Your task to perform on an android device: change the clock display to show seconds Image 0: 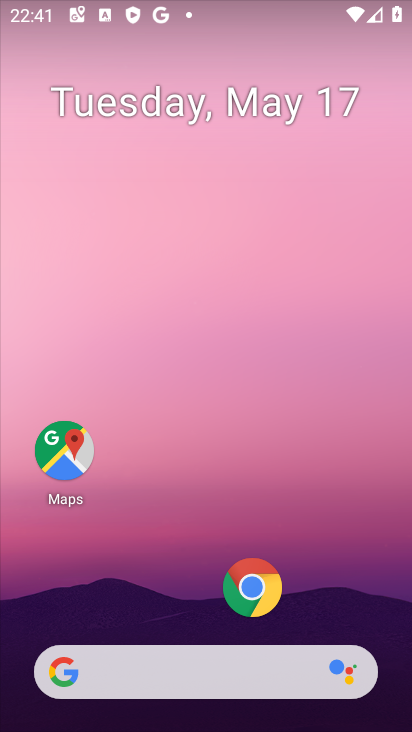
Step 0: drag from (169, 404) to (185, 150)
Your task to perform on an android device: change the clock display to show seconds Image 1: 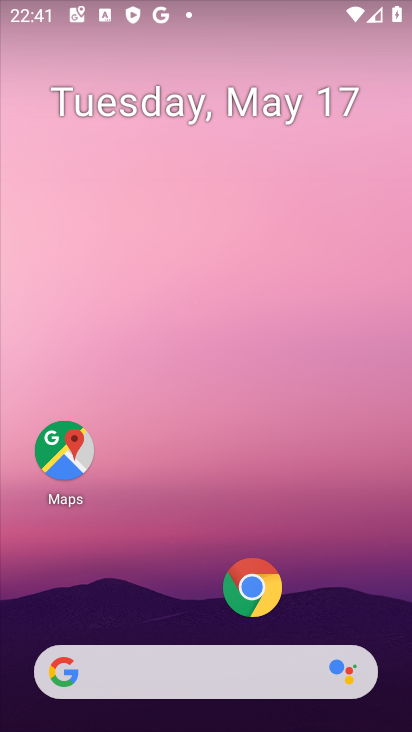
Step 1: drag from (202, 551) to (182, 41)
Your task to perform on an android device: change the clock display to show seconds Image 2: 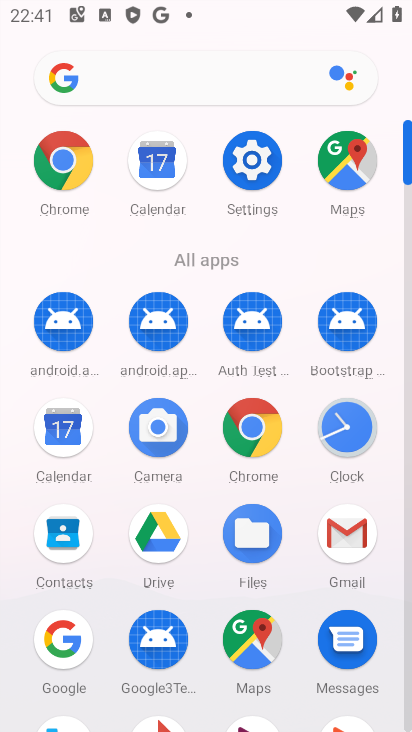
Step 2: click (350, 441)
Your task to perform on an android device: change the clock display to show seconds Image 3: 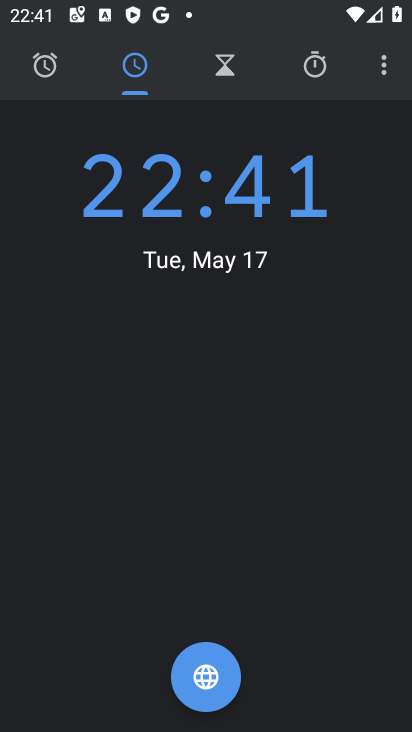
Step 3: click (381, 77)
Your task to perform on an android device: change the clock display to show seconds Image 4: 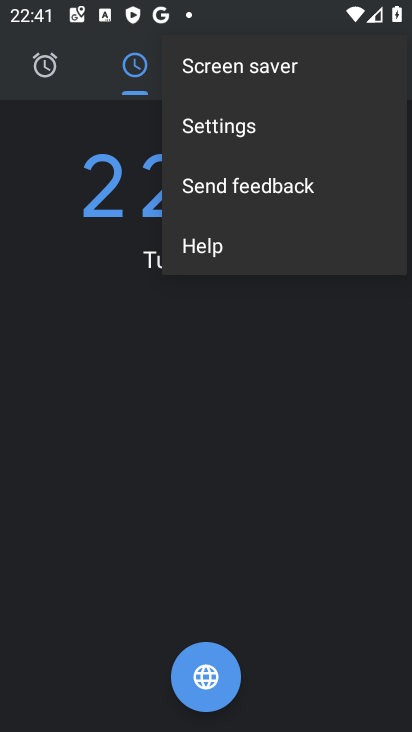
Step 4: click (281, 131)
Your task to perform on an android device: change the clock display to show seconds Image 5: 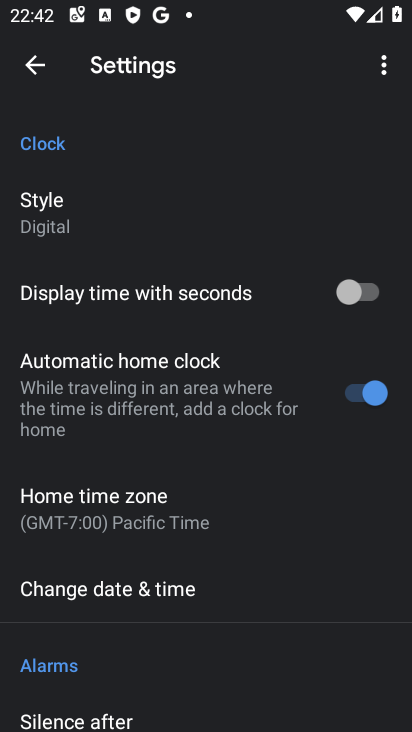
Step 5: click (349, 293)
Your task to perform on an android device: change the clock display to show seconds Image 6: 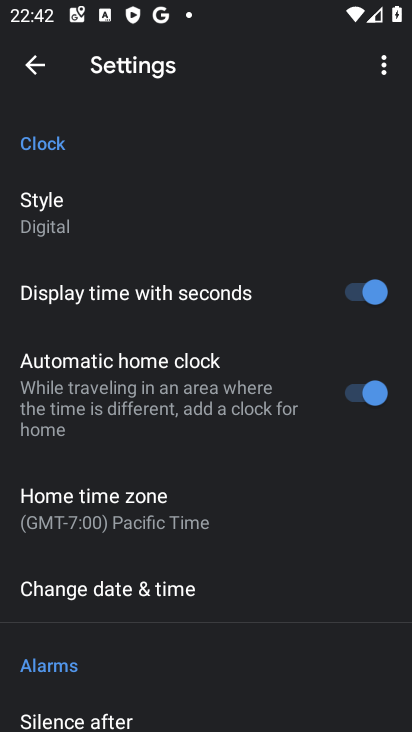
Step 6: task complete